Your task to perform on an android device: Go to privacy settings Image 0: 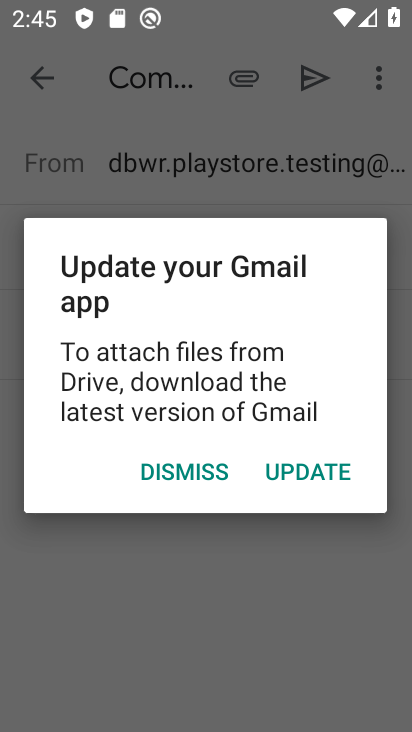
Step 0: press home button
Your task to perform on an android device: Go to privacy settings Image 1: 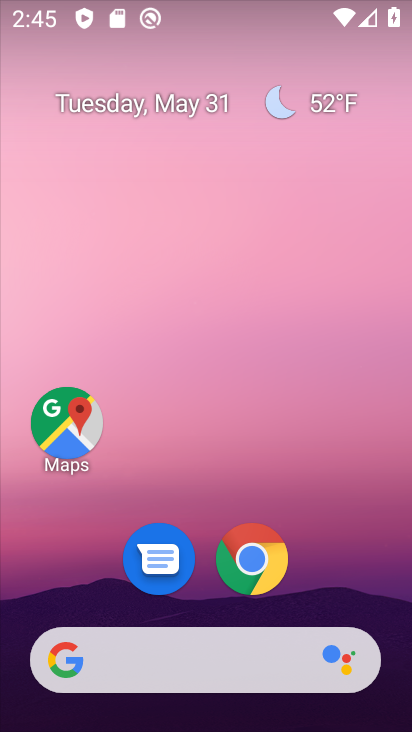
Step 1: drag from (208, 601) to (204, 111)
Your task to perform on an android device: Go to privacy settings Image 2: 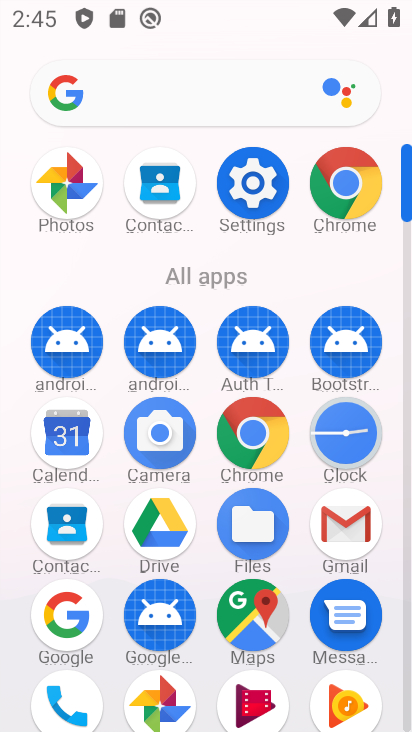
Step 2: click (226, 198)
Your task to perform on an android device: Go to privacy settings Image 3: 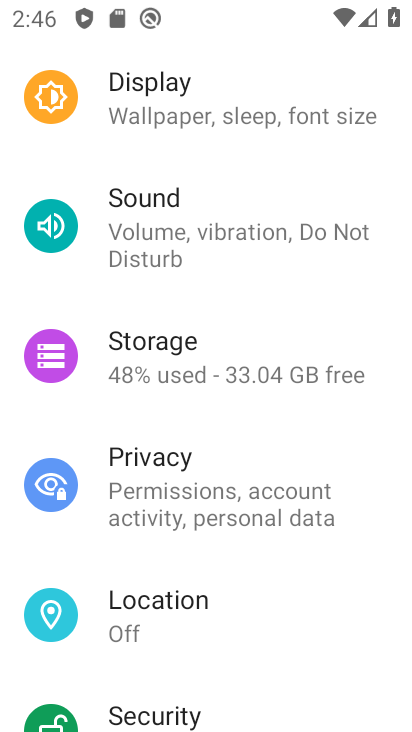
Step 3: drag from (180, 660) to (180, 514)
Your task to perform on an android device: Go to privacy settings Image 4: 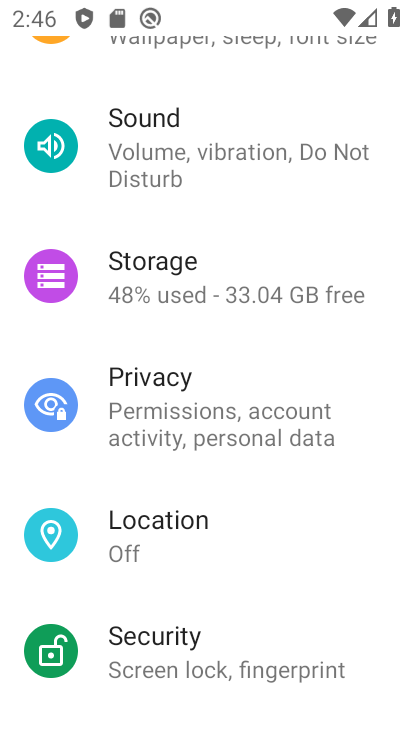
Step 4: click (155, 363)
Your task to perform on an android device: Go to privacy settings Image 5: 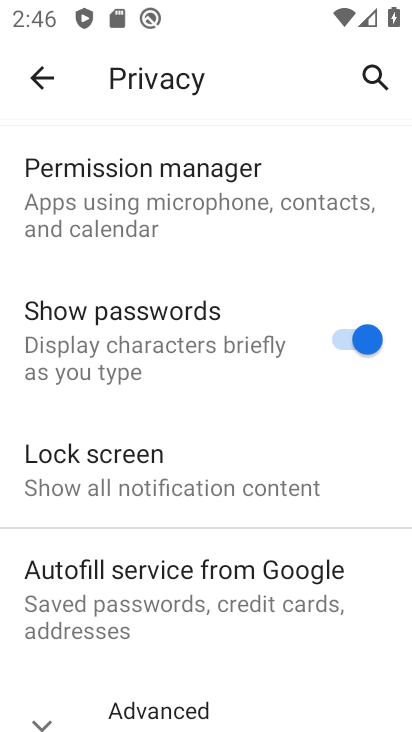
Step 5: task complete